Your task to perform on an android device: Search for Mexican restaurants on Maps Image 0: 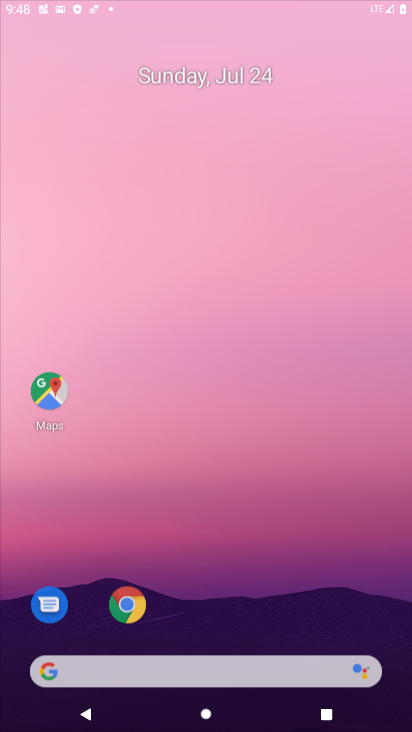
Step 0: press home button
Your task to perform on an android device: Search for Mexican restaurants on Maps Image 1: 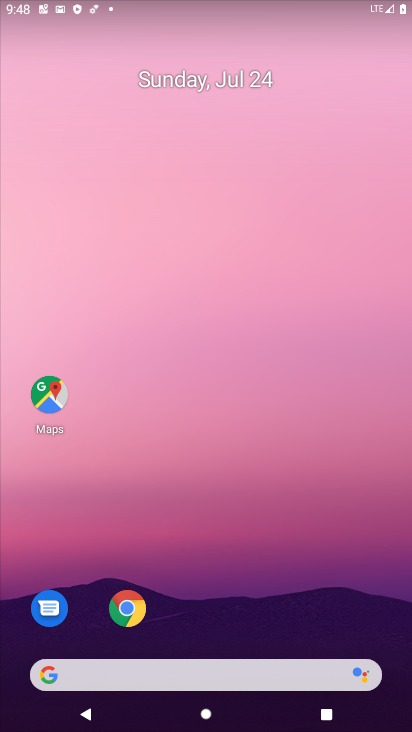
Step 1: click (47, 390)
Your task to perform on an android device: Search for Mexican restaurants on Maps Image 2: 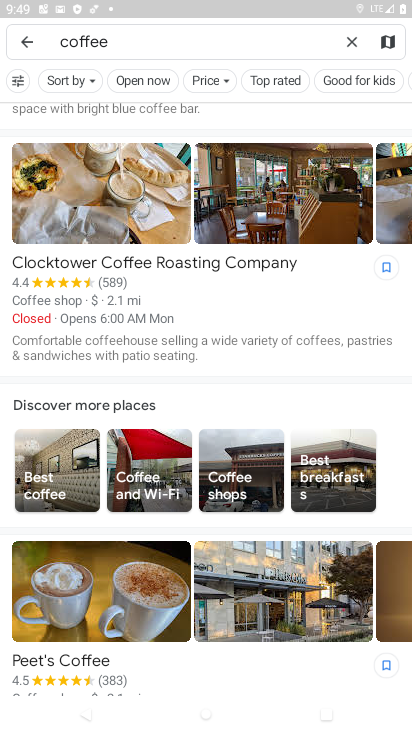
Step 2: click (350, 39)
Your task to perform on an android device: Search for Mexican restaurants on Maps Image 3: 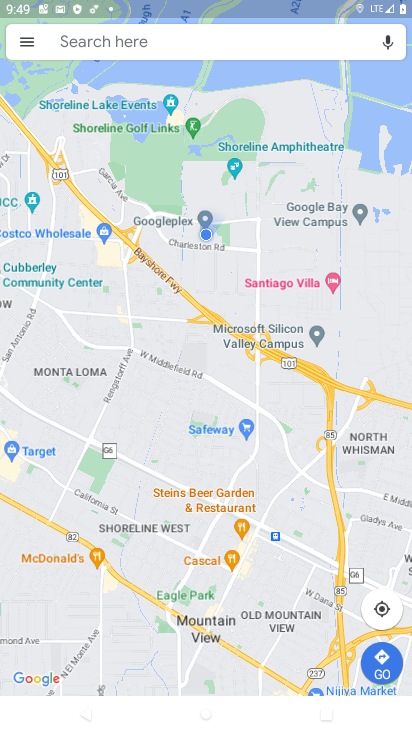
Step 3: click (104, 37)
Your task to perform on an android device: Search for Mexican restaurants on Maps Image 4: 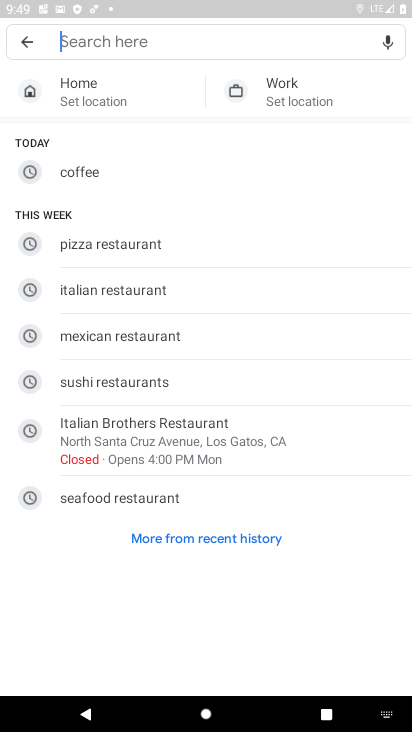
Step 4: click (111, 336)
Your task to perform on an android device: Search for Mexican restaurants on Maps Image 5: 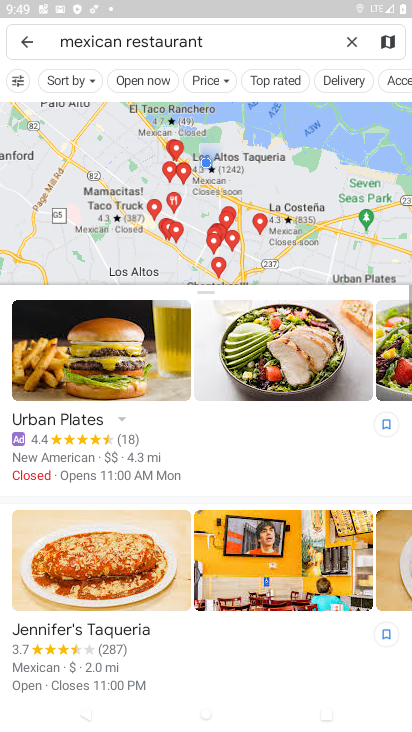
Step 5: drag from (202, 468) to (236, 140)
Your task to perform on an android device: Search for Mexican restaurants on Maps Image 6: 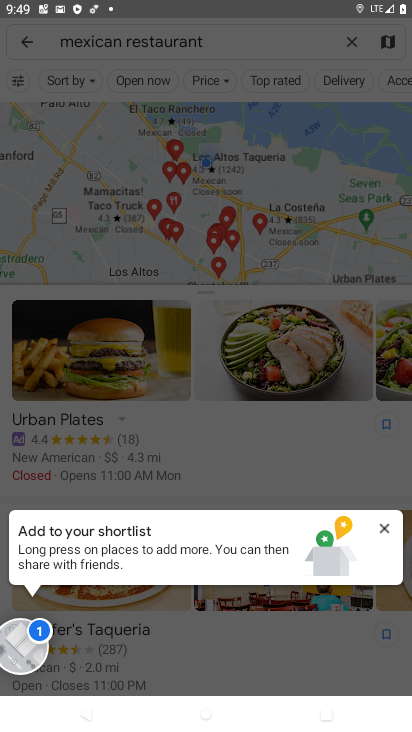
Step 6: drag from (16, 656) to (341, 652)
Your task to perform on an android device: Search for Mexican restaurants on Maps Image 7: 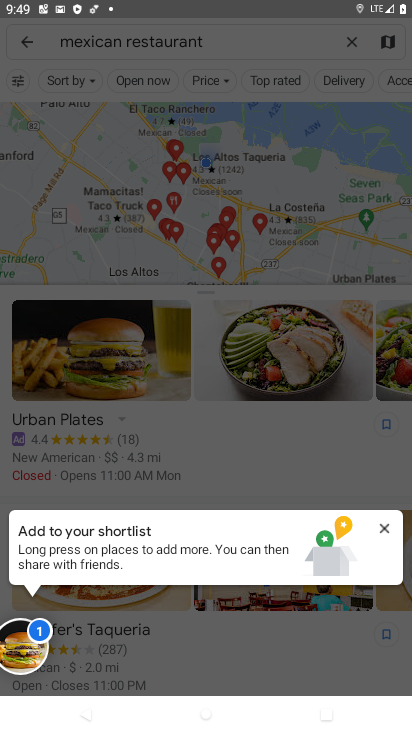
Step 7: click (383, 530)
Your task to perform on an android device: Search for Mexican restaurants on Maps Image 8: 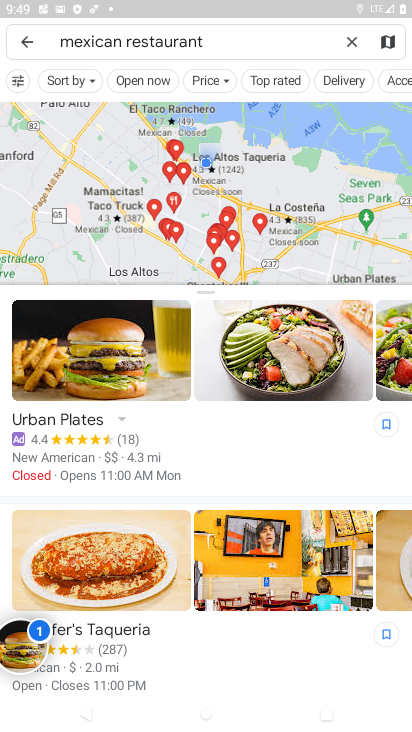
Step 8: drag from (31, 645) to (333, 723)
Your task to perform on an android device: Search for Mexican restaurants on Maps Image 9: 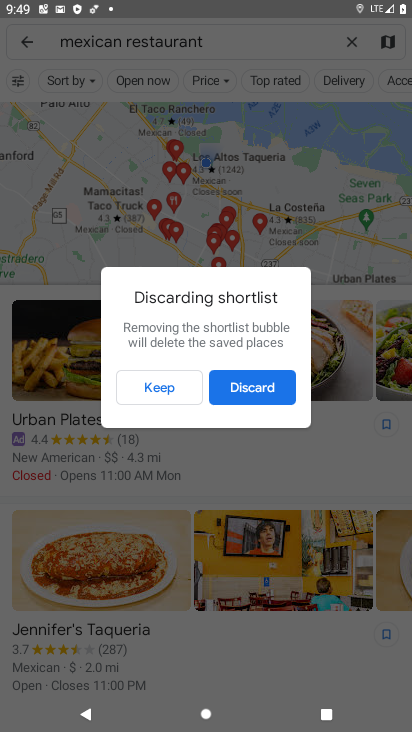
Step 9: click (256, 387)
Your task to perform on an android device: Search for Mexican restaurants on Maps Image 10: 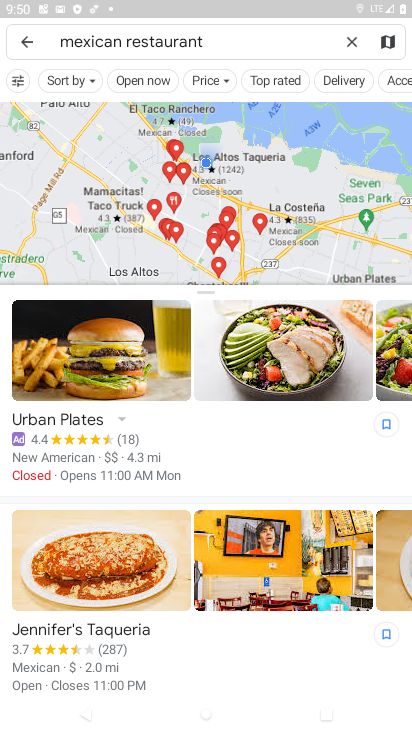
Step 10: task complete